Your task to perform on an android device: Search for vegetarian restaurants on Maps Image 0: 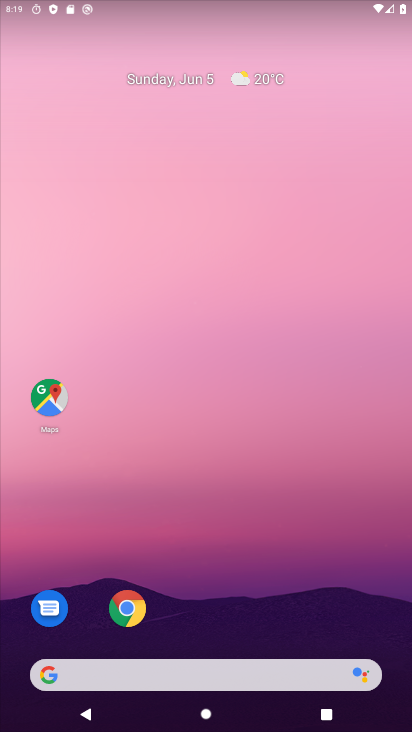
Step 0: drag from (259, 622) to (275, 113)
Your task to perform on an android device: Search for vegetarian restaurants on Maps Image 1: 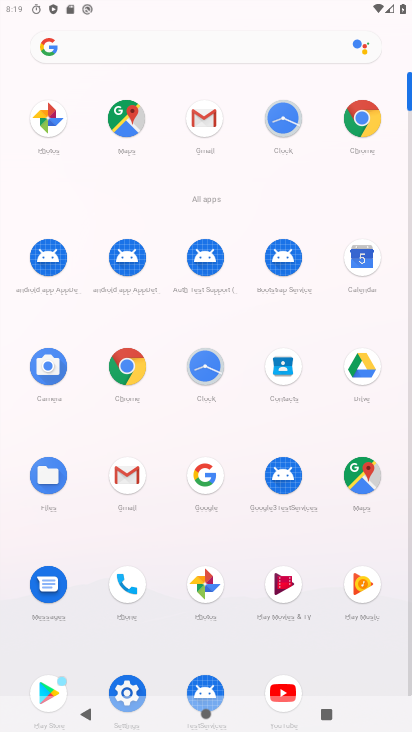
Step 1: click (371, 480)
Your task to perform on an android device: Search for vegetarian restaurants on Maps Image 2: 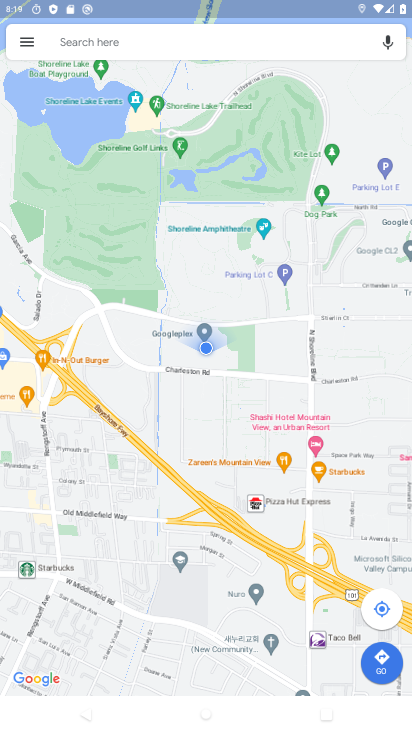
Step 2: click (160, 45)
Your task to perform on an android device: Search for vegetarian restaurants on Maps Image 3: 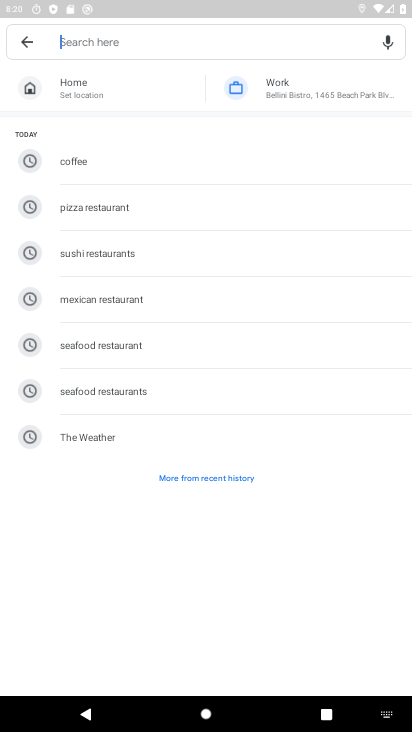
Step 3: type "vegetarian restaurnts "
Your task to perform on an android device: Search for vegetarian restaurants on Maps Image 4: 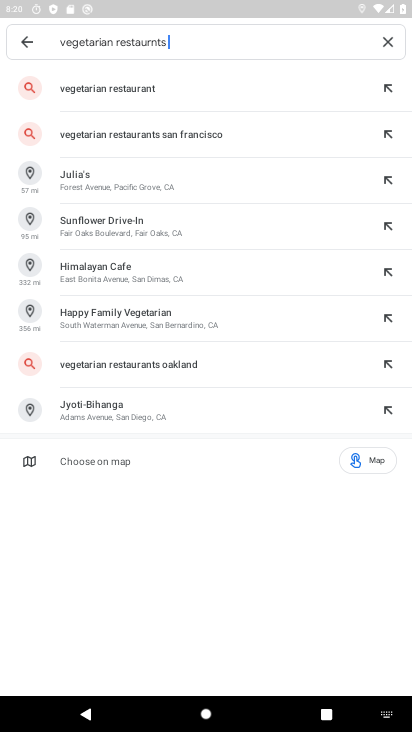
Step 4: click (193, 88)
Your task to perform on an android device: Search for vegetarian restaurants on Maps Image 5: 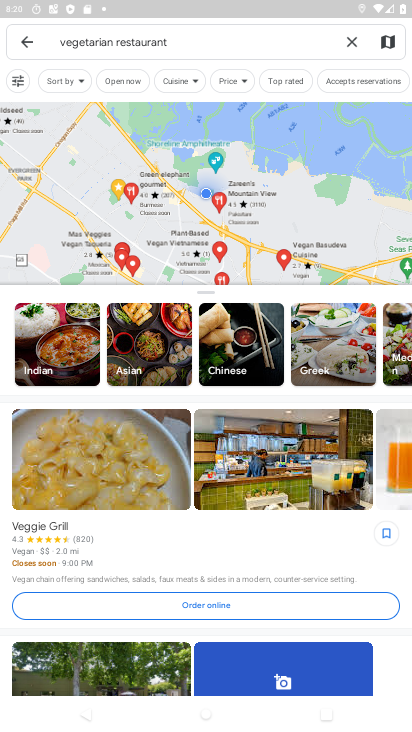
Step 5: task complete